Your task to perform on an android device: turn on the 24-hour format for clock Image 0: 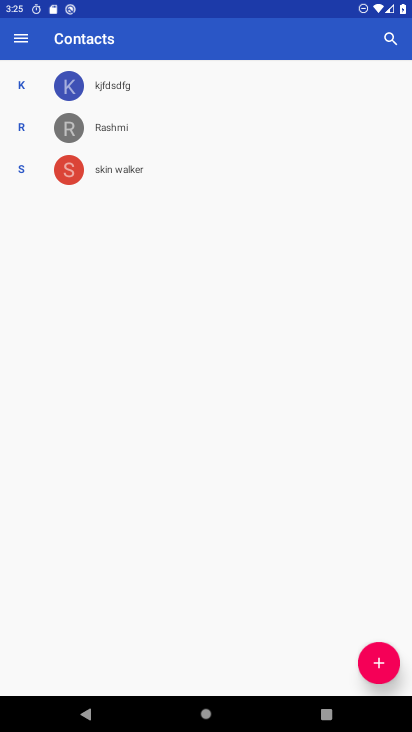
Step 0: press home button
Your task to perform on an android device: turn on the 24-hour format for clock Image 1: 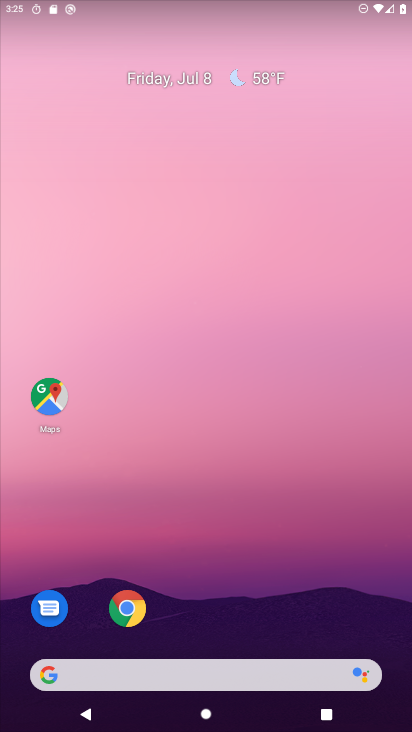
Step 1: drag from (247, 691) to (195, 24)
Your task to perform on an android device: turn on the 24-hour format for clock Image 2: 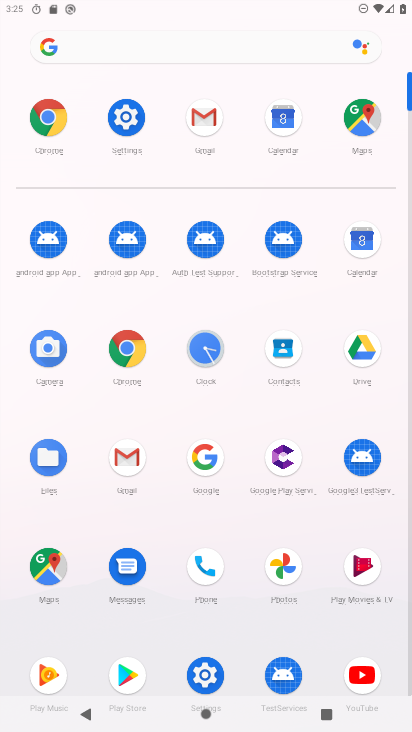
Step 2: click (213, 344)
Your task to perform on an android device: turn on the 24-hour format for clock Image 3: 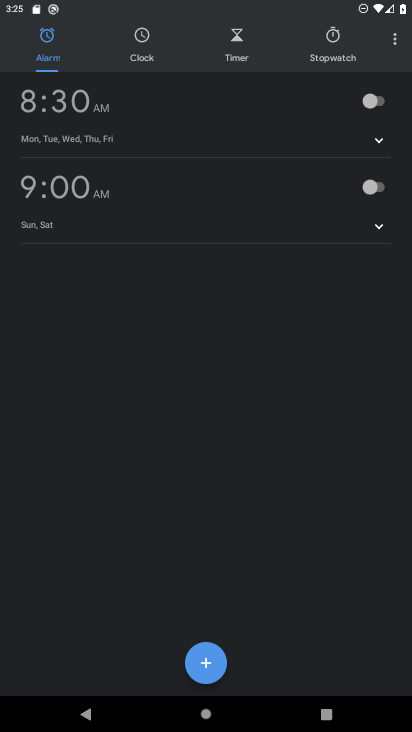
Step 3: click (395, 44)
Your task to perform on an android device: turn on the 24-hour format for clock Image 4: 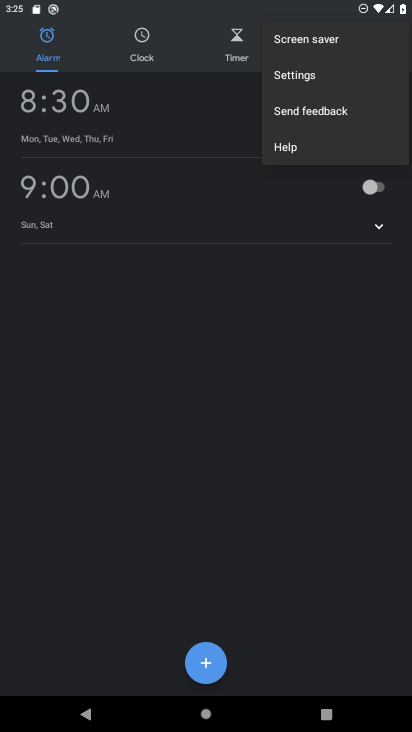
Step 4: click (299, 72)
Your task to perform on an android device: turn on the 24-hour format for clock Image 5: 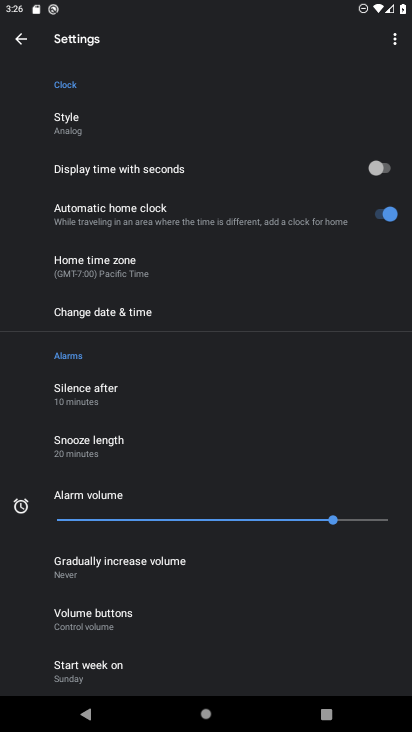
Step 5: click (105, 312)
Your task to perform on an android device: turn on the 24-hour format for clock Image 6: 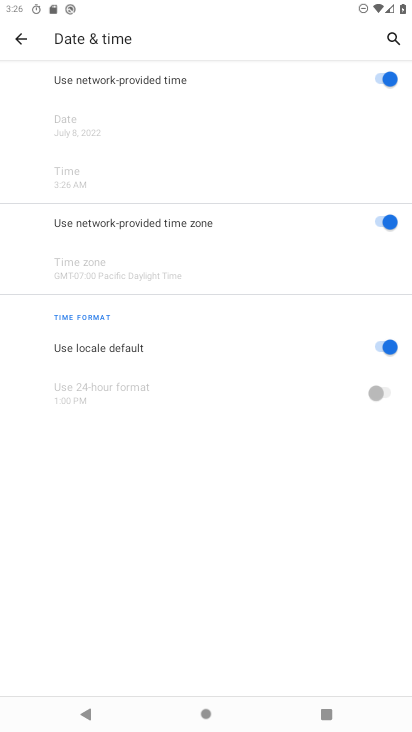
Step 6: click (382, 344)
Your task to perform on an android device: turn on the 24-hour format for clock Image 7: 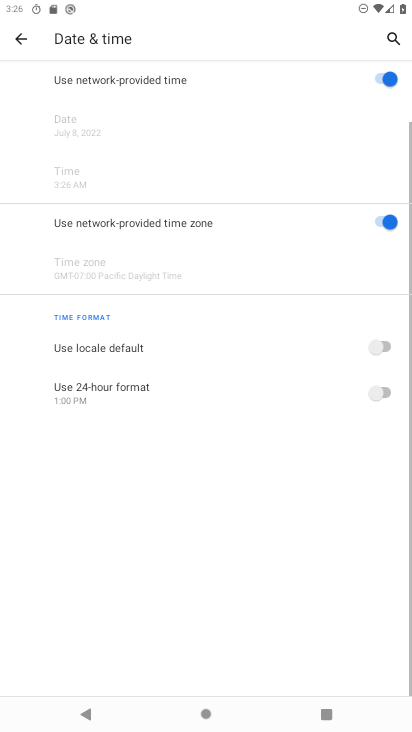
Step 7: click (382, 392)
Your task to perform on an android device: turn on the 24-hour format for clock Image 8: 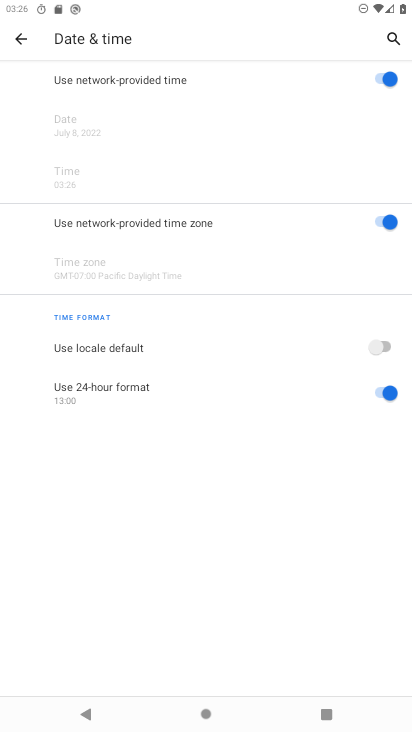
Step 8: task complete